Your task to perform on an android device: Open a new Chrome incognito tab Image 0: 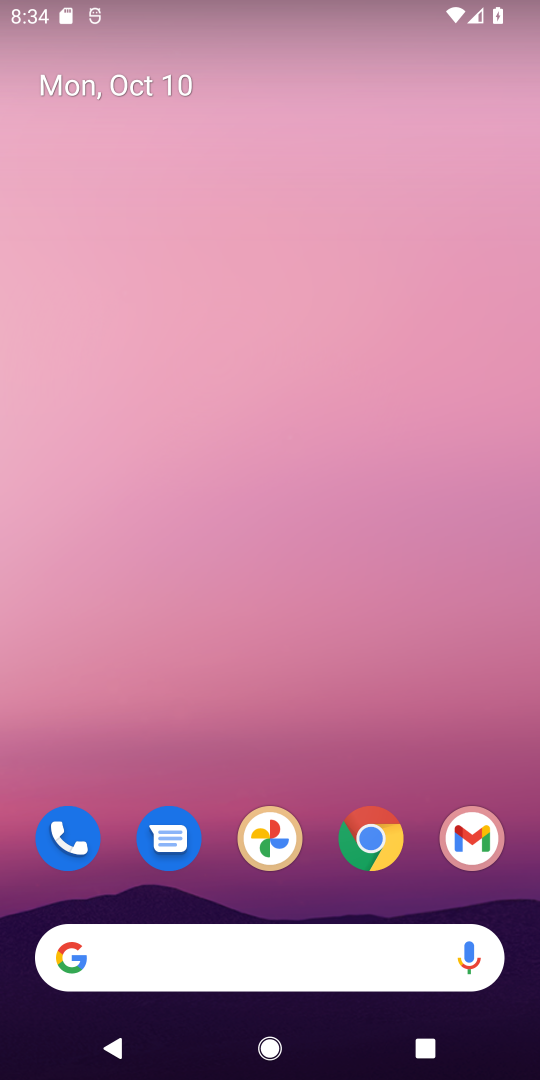
Step 0: click (370, 844)
Your task to perform on an android device: Open a new Chrome incognito tab Image 1: 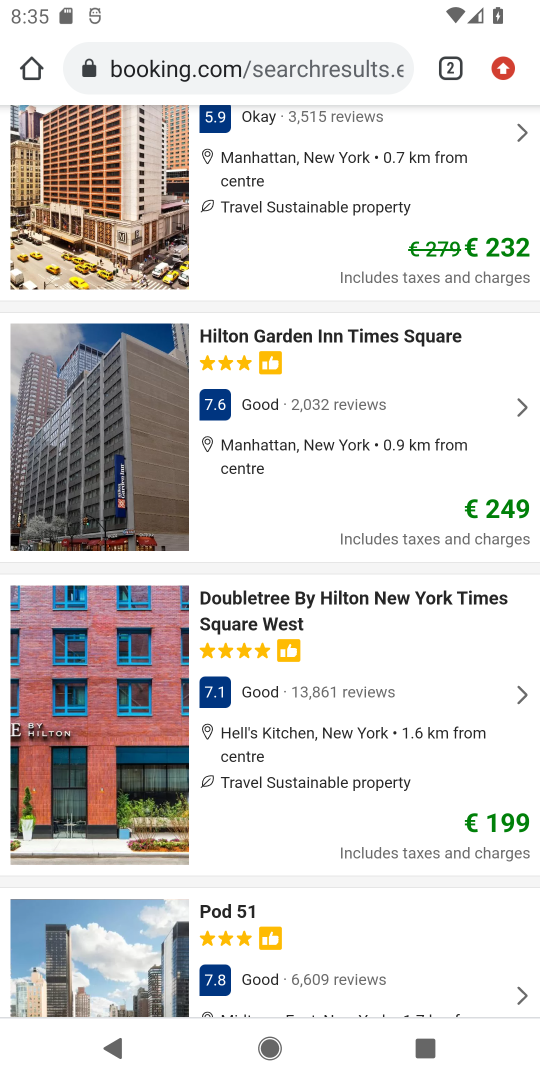
Step 1: click (503, 69)
Your task to perform on an android device: Open a new Chrome incognito tab Image 2: 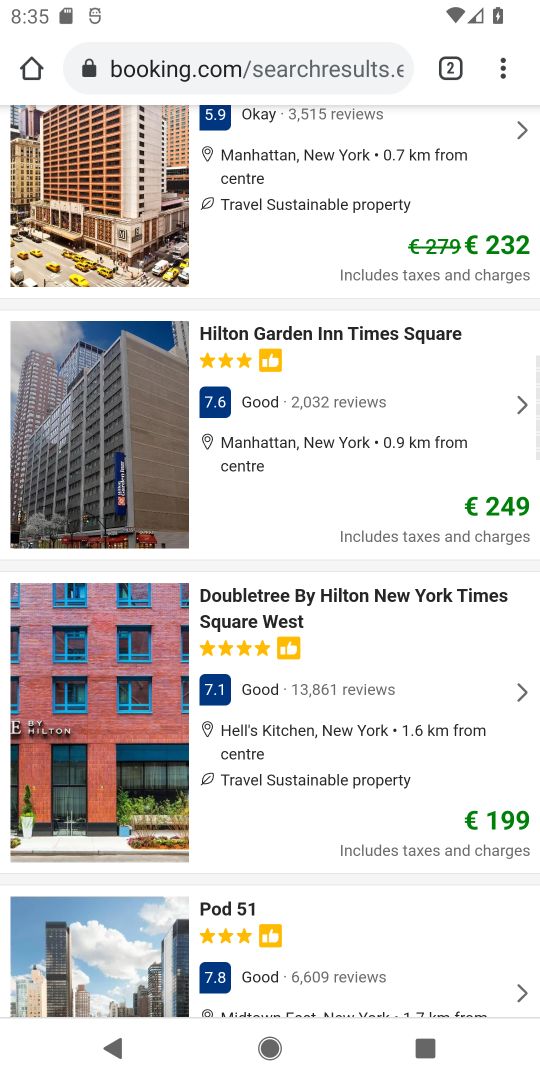
Step 2: click (496, 73)
Your task to perform on an android device: Open a new Chrome incognito tab Image 3: 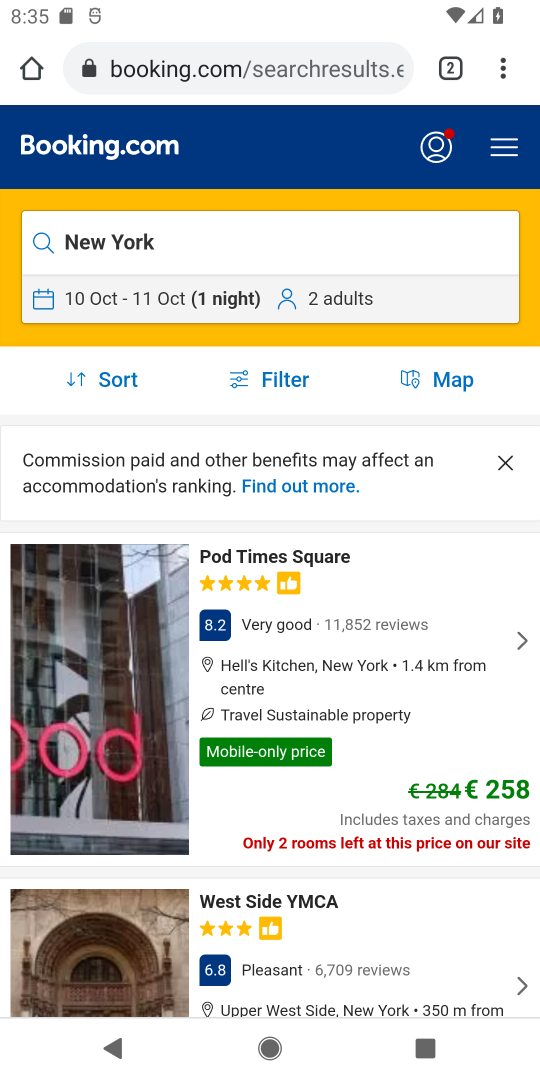
Step 3: click (500, 76)
Your task to perform on an android device: Open a new Chrome incognito tab Image 4: 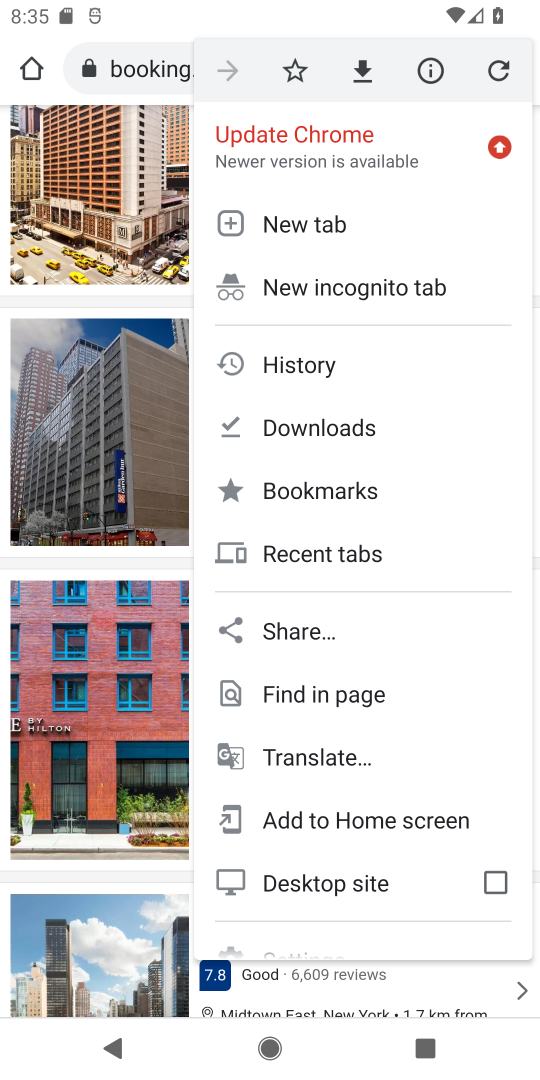
Step 4: click (334, 282)
Your task to perform on an android device: Open a new Chrome incognito tab Image 5: 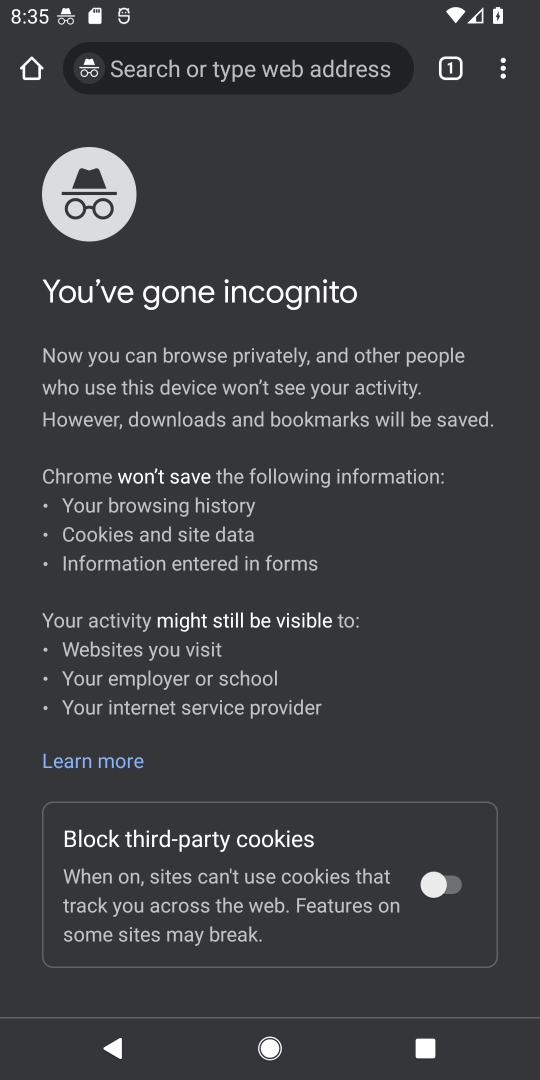
Step 5: task complete